Your task to perform on an android device: turn off sleep mode Image 0: 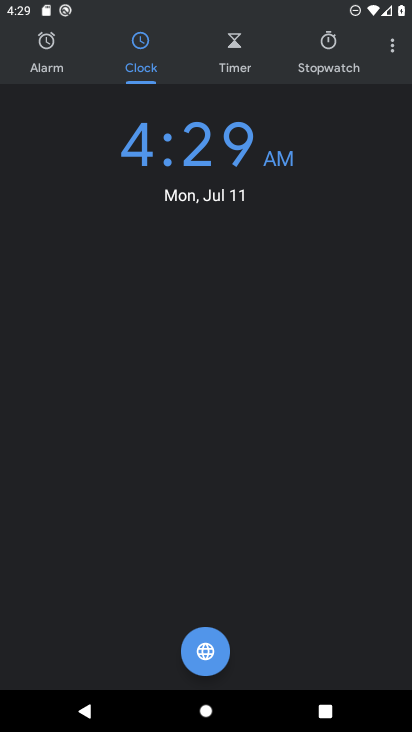
Step 0: press home button
Your task to perform on an android device: turn off sleep mode Image 1: 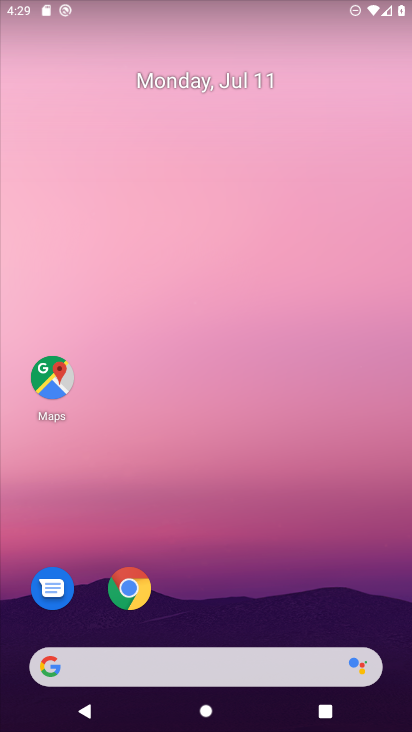
Step 1: drag from (218, 558) to (251, 0)
Your task to perform on an android device: turn off sleep mode Image 2: 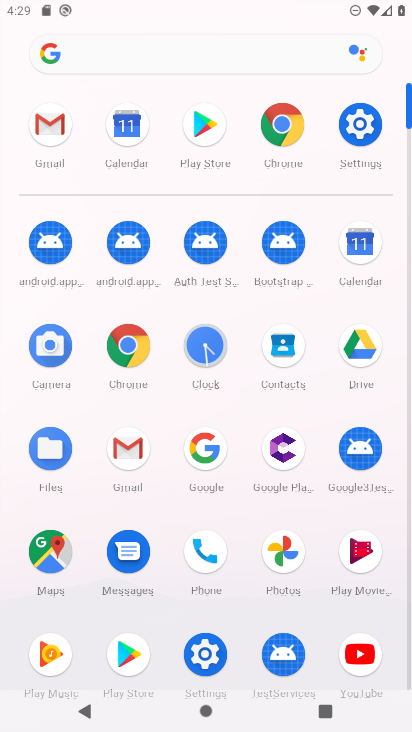
Step 2: click (357, 123)
Your task to perform on an android device: turn off sleep mode Image 3: 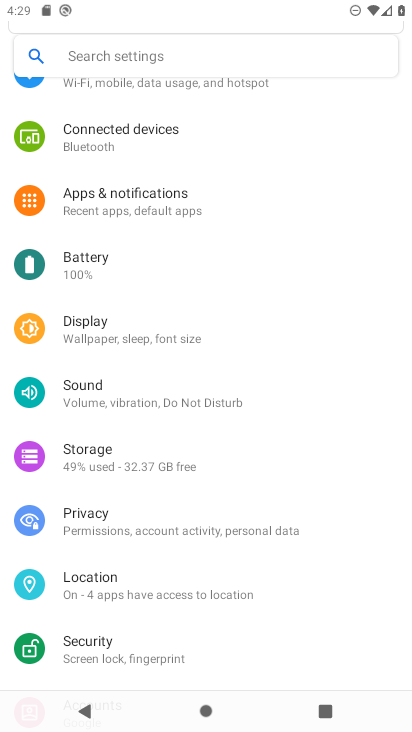
Step 3: click (83, 326)
Your task to perform on an android device: turn off sleep mode Image 4: 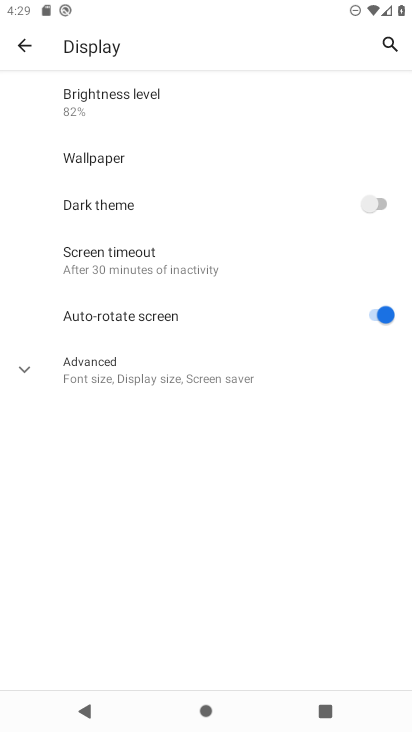
Step 4: task complete